Your task to perform on an android device: snooze an email in the gmail app Image 0: 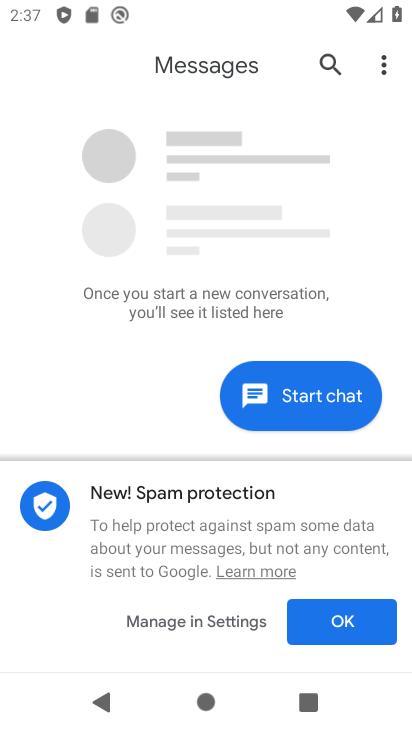
Step 0: press back button
Your task to perform on an android device: snooze an email in the gmail app Image 1: 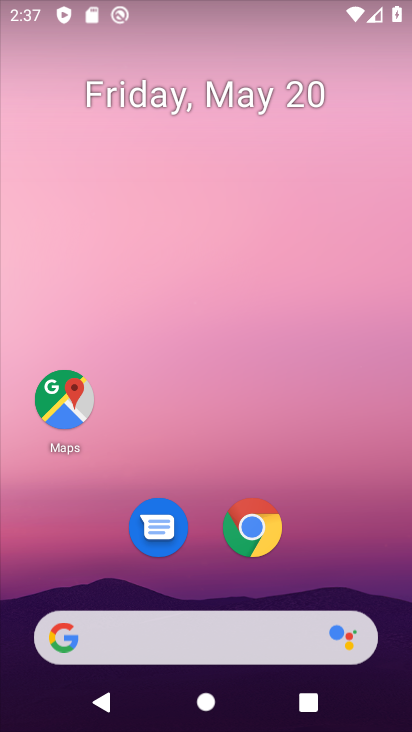
Step 1: drag from (218, 569) to (320, 37)
Your task to perform on an android device: snooze an email in the gmail app Image 2: 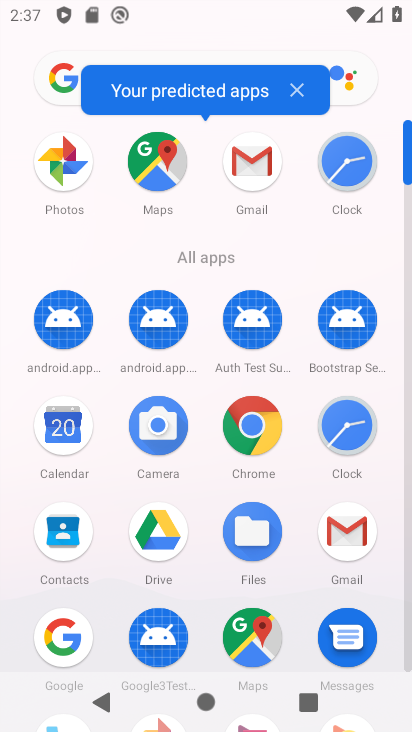
Step 2: click (250, 159)
Your task to perform on an android device: snooze an email in the gmail app Image 3: 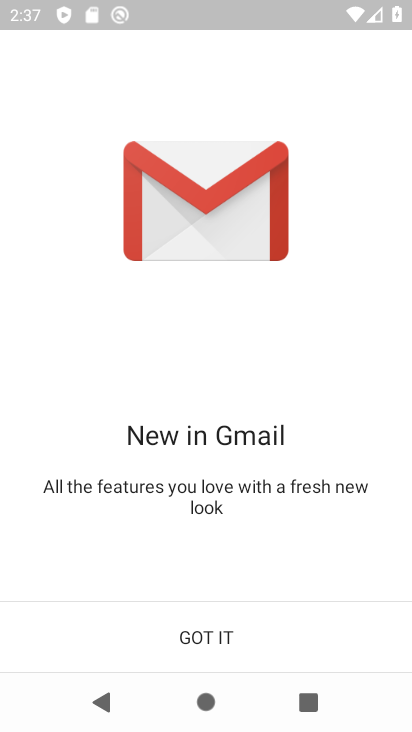
Step 3: click (181, 631)
Your task to perform on an android device: snooze an email in the gmail app Image 4: 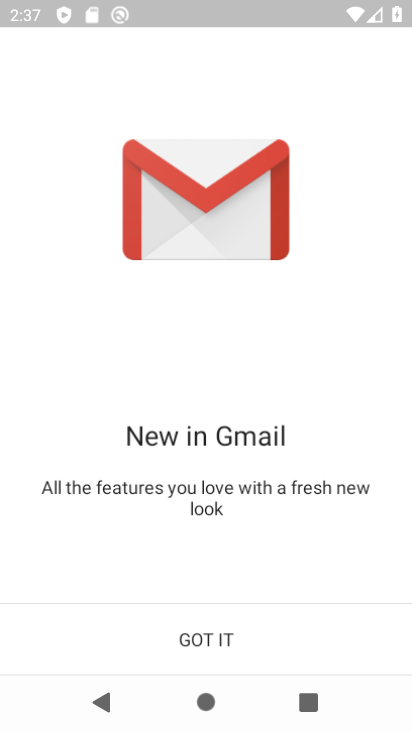
Step 4: click (186, 631)
Your task to perform on an android device: snooze an email in the gmail app Image 5: 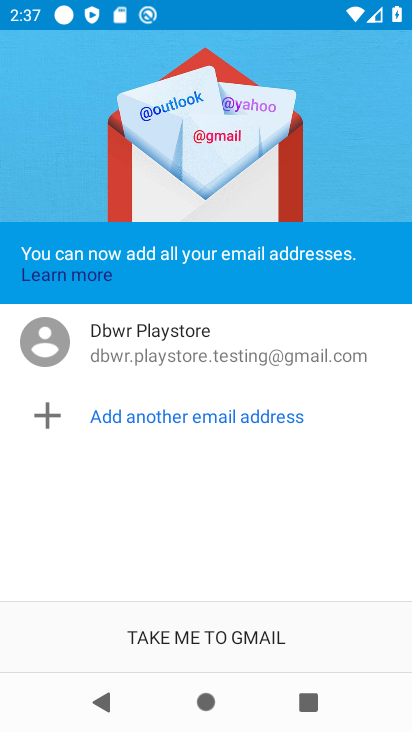
Step 5: click (187, 631)
Your task to perform on an android device: snooze an email in the gmail app Image 6: 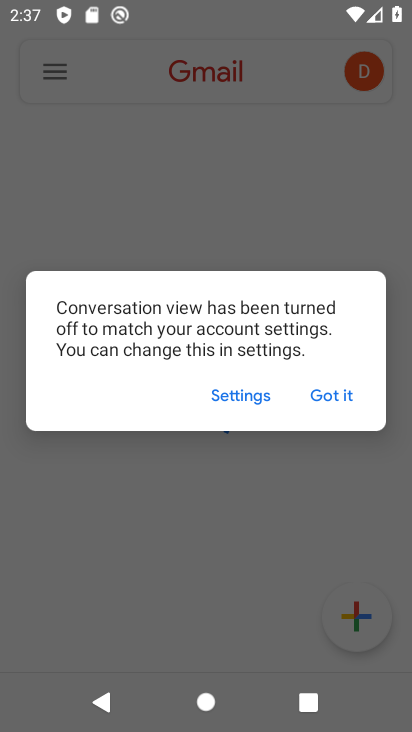
Step 6: click (325, 391)
Your task to perform on an android device: snooze an email in the gmail app Image 7: 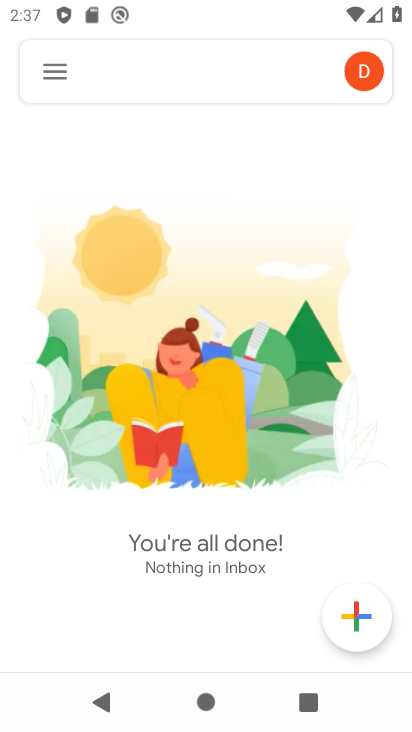
Step 7: click (45, 74)
Your task to perform on an android device: snooze an email in the gmail app Image 8: 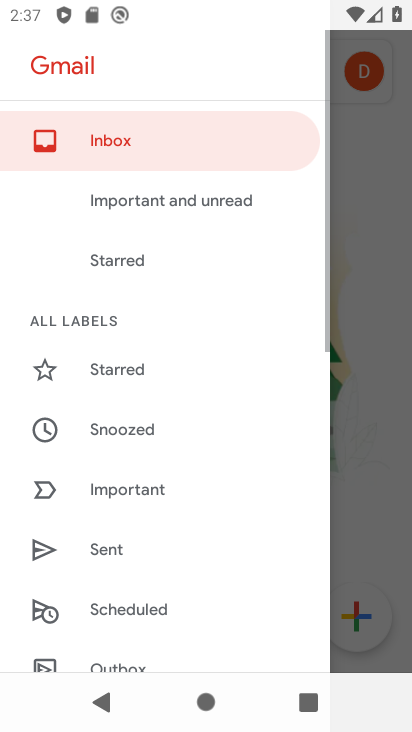
Step 8: drag from (129, 602) to (204, 192)
Your task to perform on an android device: snooze an email in the gmail app Image 9: 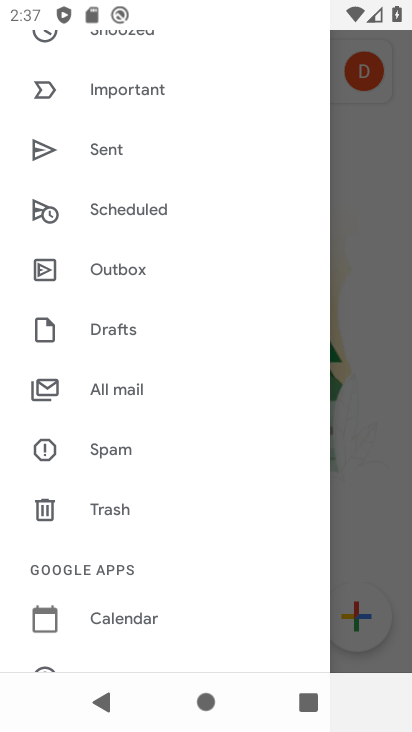
Step 9: click (129, 390)
Your task to perform on an android device: snooze an email in the gmail app Image 10: 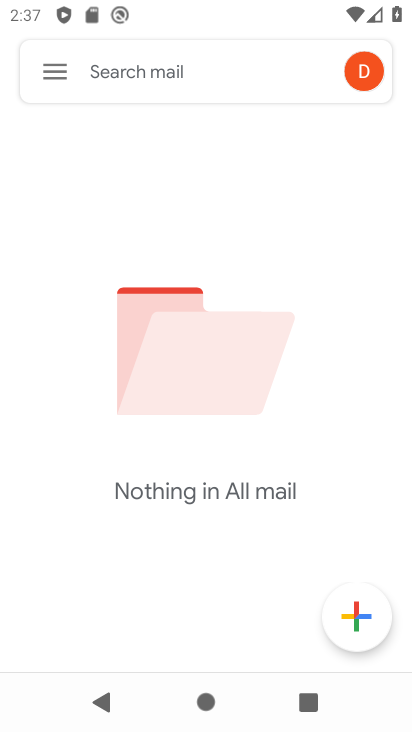
Step 10: task complete